Your task to perform on an android device: search for starred emails in the gmail app Image 0: 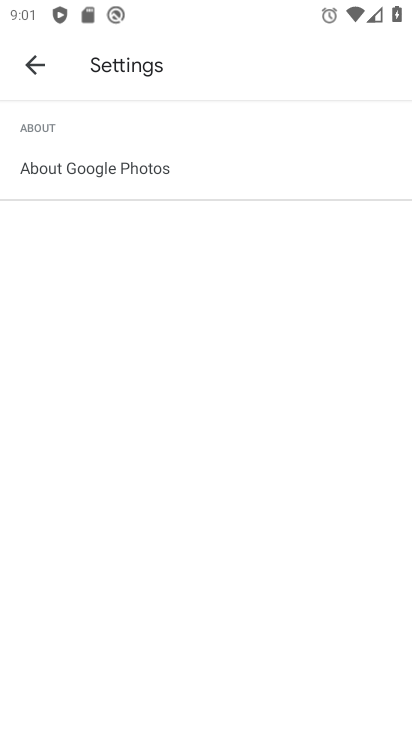
Step 0: press home button
Your task to perform on an android device: search for starred emails in the gmail app Image 1: 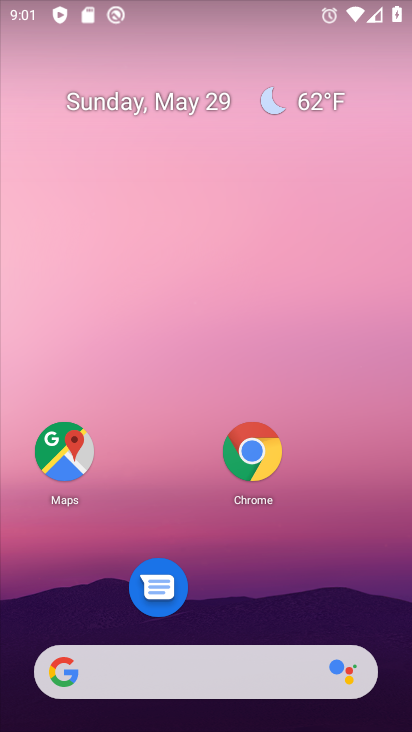
Step 1: drag from (231, 611) to (179, 102)
Your task to perform on an android device: search for starred emails in the gmail app Image 2: 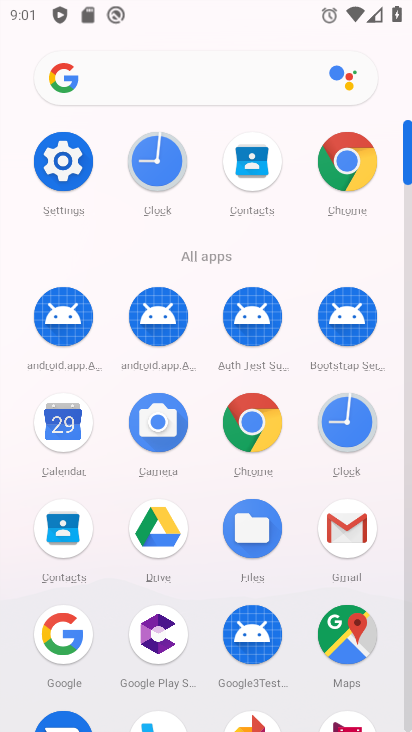
Step 2: click (348, 527)
Your task to perform on an android device: search for starred emails in the gmail app Image 3: 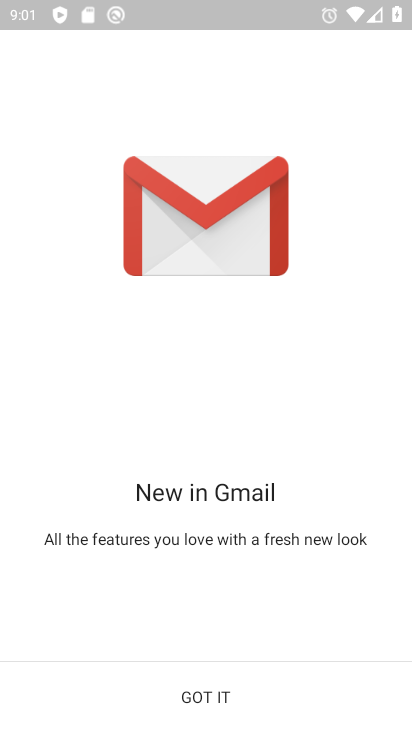
Step 3: click (214, 674)
Your task to perform on an android device: search for starred emails in the gmail app Image 4: 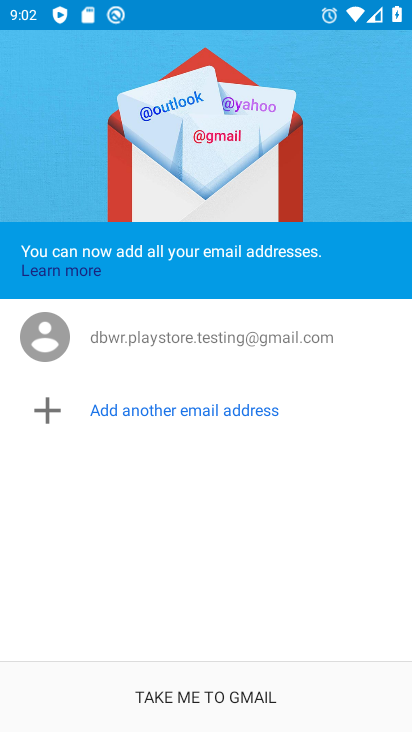
Step 4: click (214, 674)
Your task to perform on an android device: search for starred emails in the gmail app Image 5: 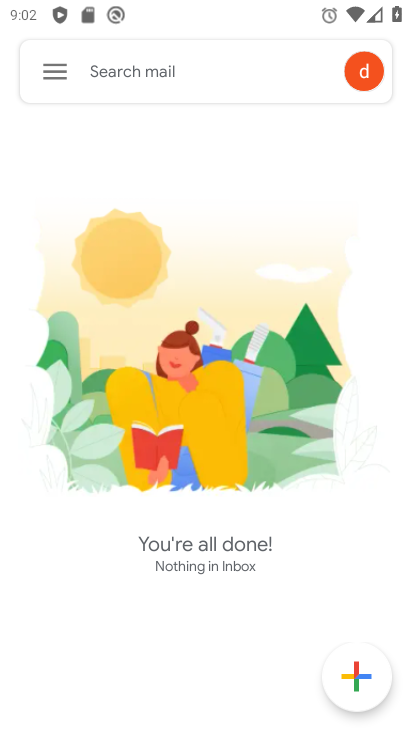
Step 5: click (50, 77)
Your task to perform on an android device: search for starred emails in the gmail app Image 6: 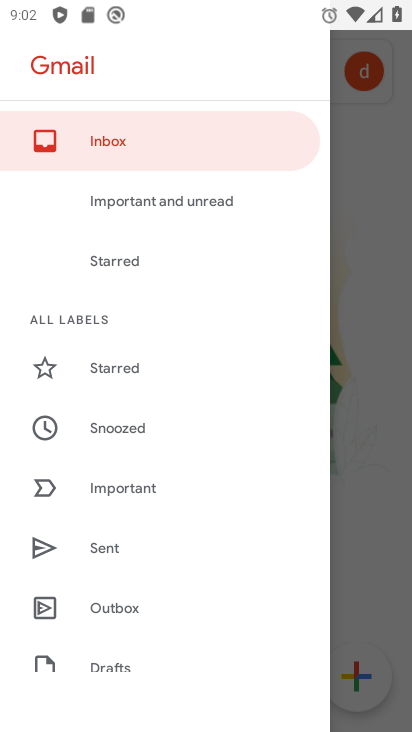
Step 6: click (137, 346)
Your task to perform on an android device: search for starred emails in the gmail app Image 7: 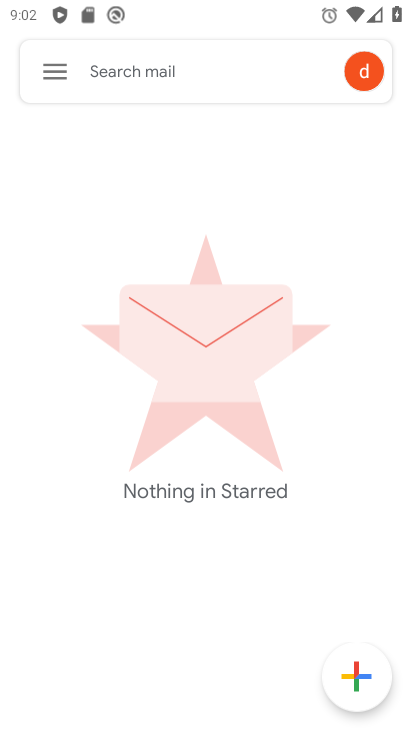
Step 7: task complete